Your task to perform on an android device: Search for sushi restaurants on Maps Image 0: 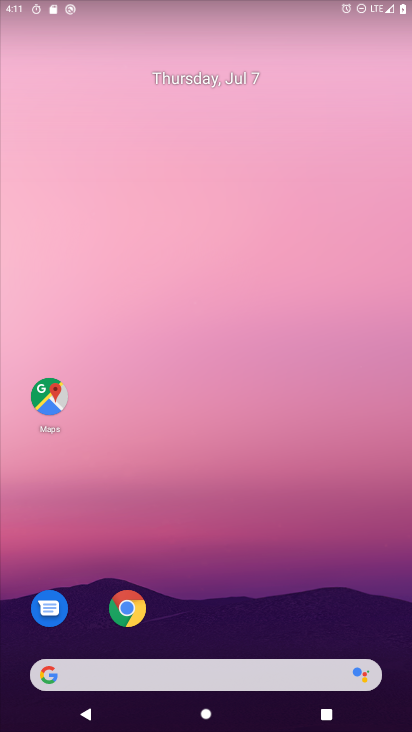
Step 0: drag from (222, 688) to (206, 107)
Your task to perform on an android device: Search for sushi restaurants on Maps Image 1: 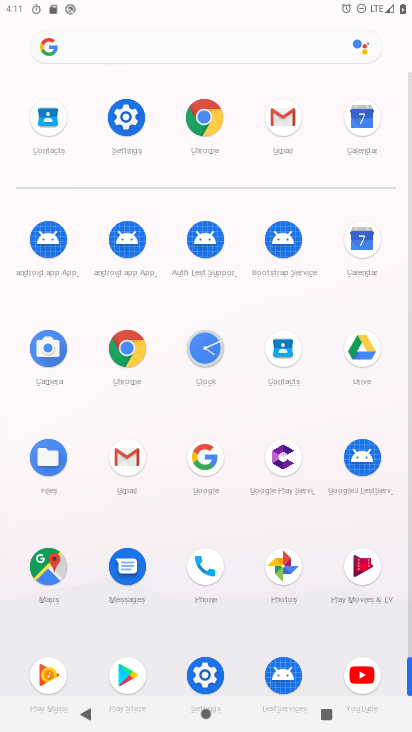
Step 1: click (54, 562)
Your task to perform on an android device: Search for sushi restaurants on Maps Image 2: 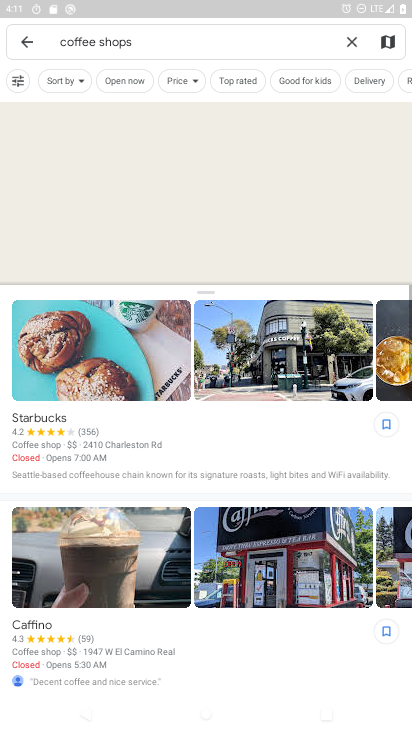
Step 2: click (347, 37)
Your task to perform on an android device: Search for sushi restaurants on Maps Image 3: 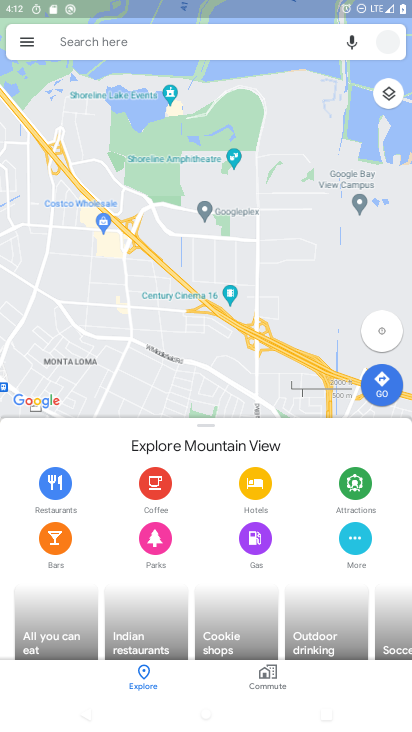
Step 3: click (169, 38)
Your task to perform on an android device: Search for sushi restaurants on Maps Image 4: 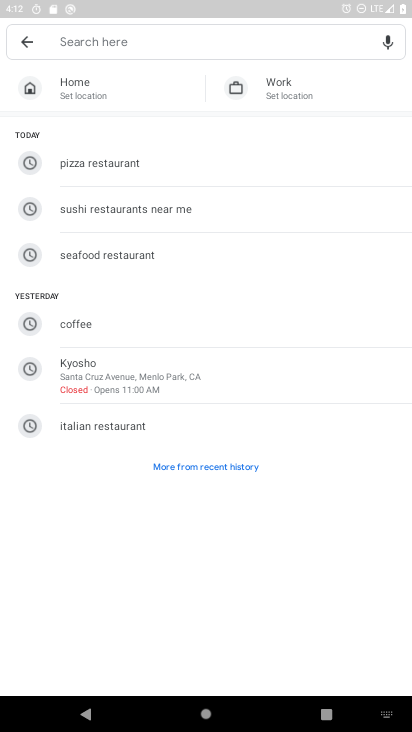
Step 4: type "sushi restaurants"
Your task to perform on an android device: Search for sushi restaurants on Maps Image 5: 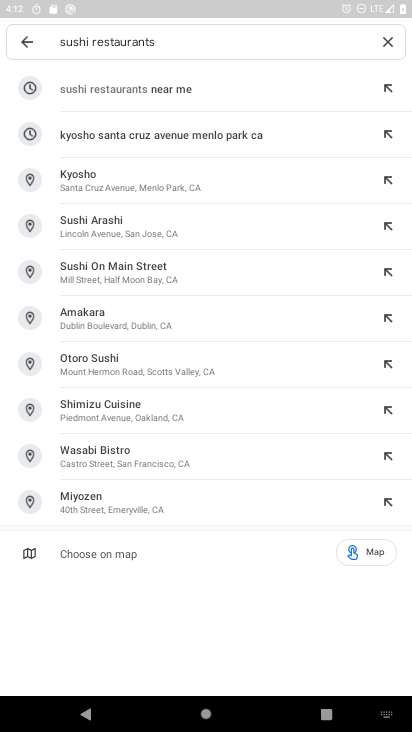
Step 5: click (135, 92)
Your task to perform on an android device: Search for sushi restaurants on Maps Image 6: 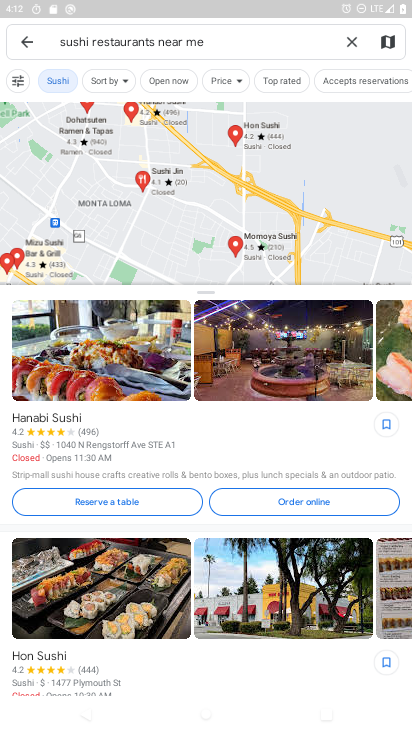
Step 6: task complete